Your task to perform on an android device: Open the calendar and show me this week's events? Image 0: 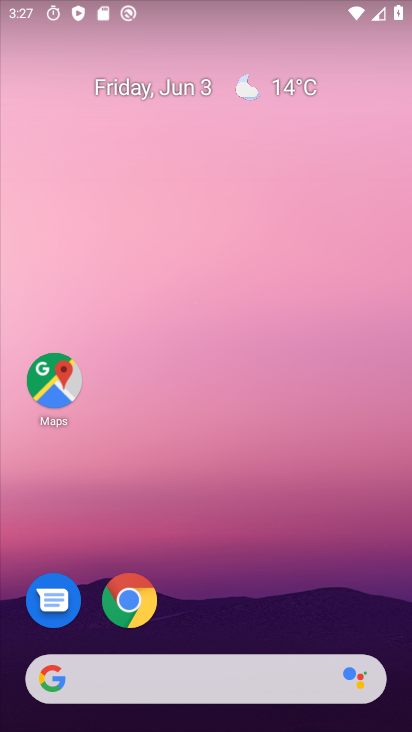
Step 0: drag from (279, 547) to (30, 46)
Your task to perform on an android device: Open the calendar and show me this week's events? Image 1: 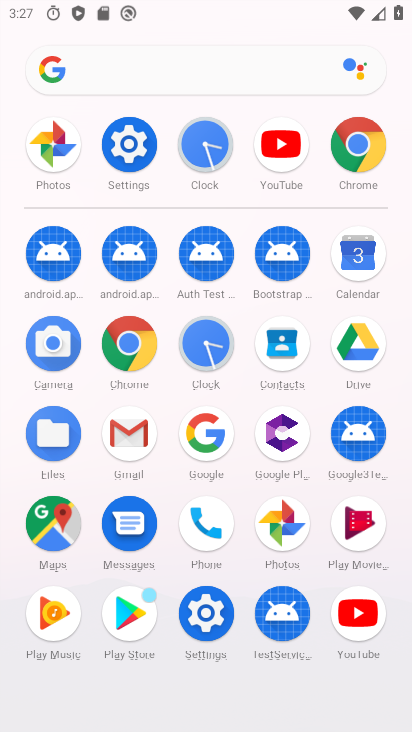
Step 1: drag from (5, 568) to (2, 175)
Your task to perform on an android device: Open the calendar and show me this week's events? Image 2: 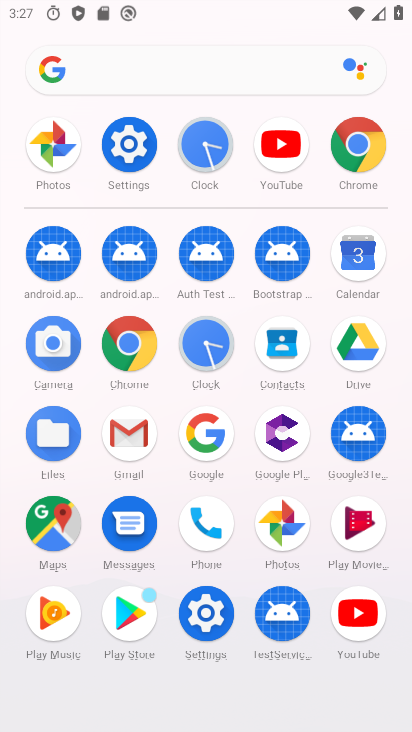
Step 2: click (363, 252)
Your task to perform on an android device: Open the calendar and show me this week's events? Image 3: 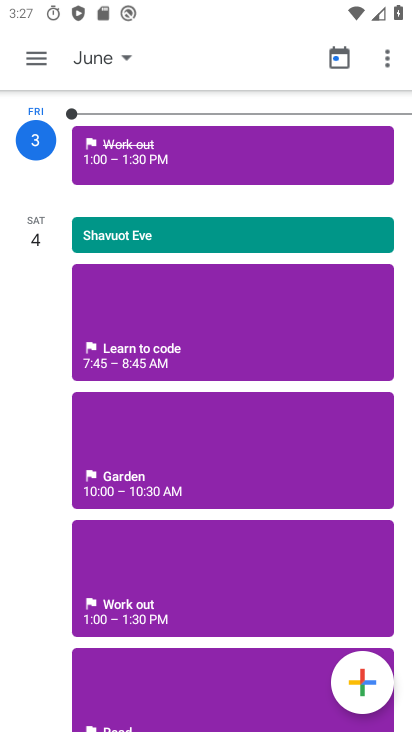
Step 3: click (40, 55)
Your task to perform on an android device: Open the calendar and show me this week's events? Image 4: 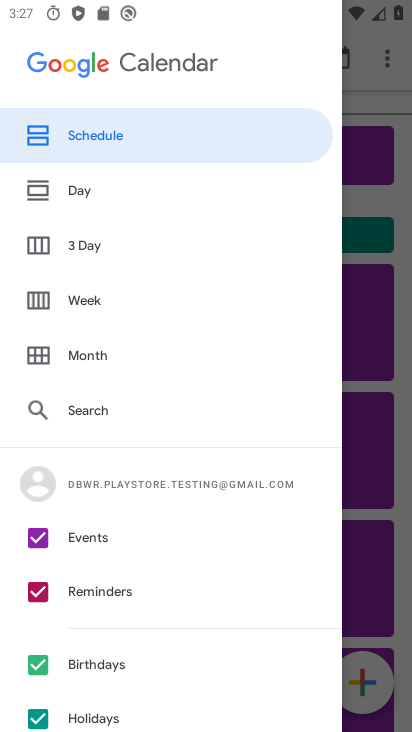
Step 4: click (119, 295)
Your task to perform on an android device: Open the calendar and show me this week's events? Image 5: 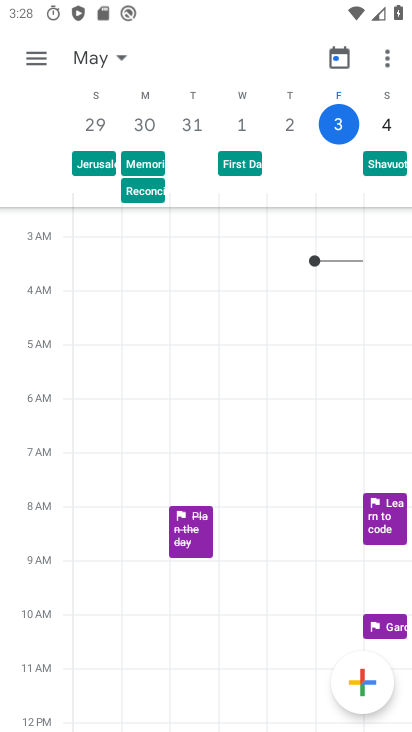
Step 5: click (89, 297)
Your task to perform on an android device: Open the calendar and show me this week's events? Image 6: 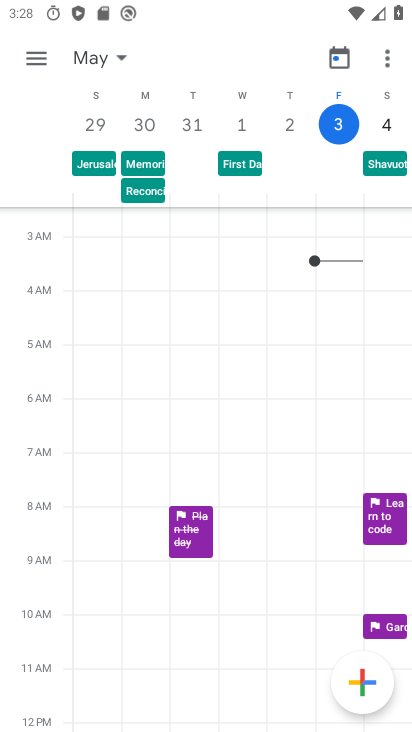
Step 6: task complete